Your task to perform on an android device: check android version Image 0: 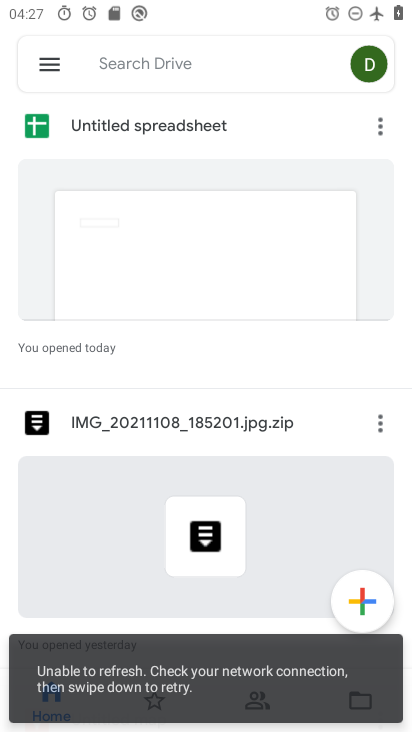
Step 0: press home button
Your task to perform on an android device: check android version Image 1: 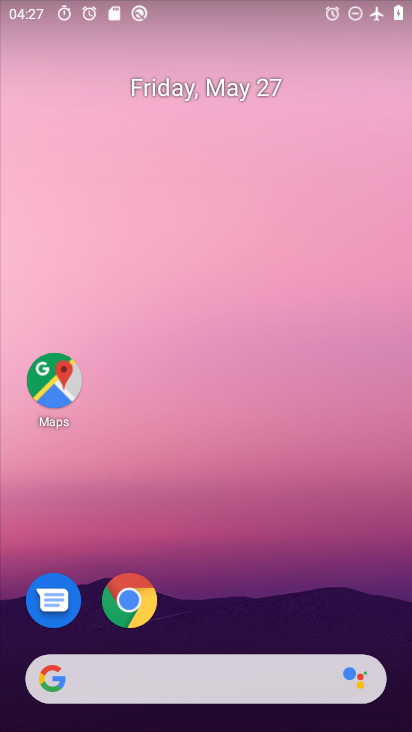
Step 1: drag from (223, 705) to (197, 69)
Your task to perform on an android device: check android version Image 2: 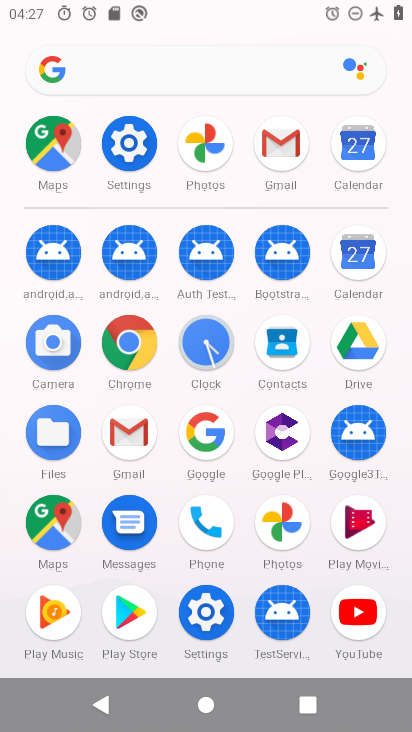
Step 2: click (125, 137)
Your task to perform on an android device: check android version Image 3: 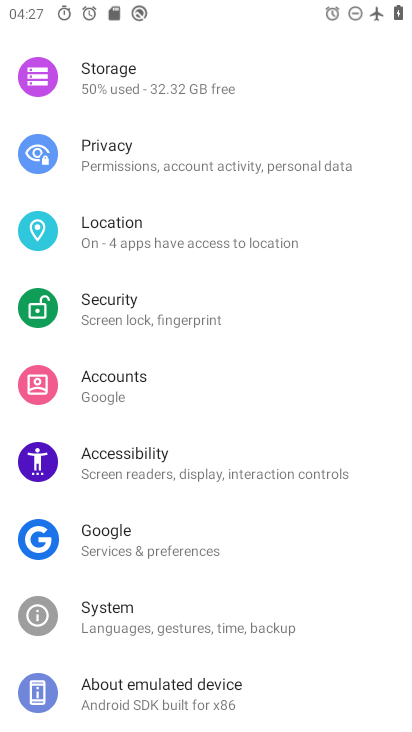
Step 3: drag from (172, 687) to (182, 168)
Your task to perform on an android device: check android version Image 4: 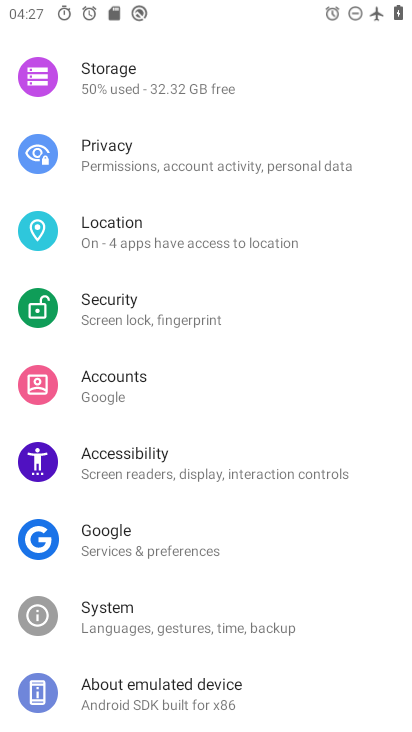
Step 4: click (138, 691)
Your task to perform on an android device: check android version Image 5: 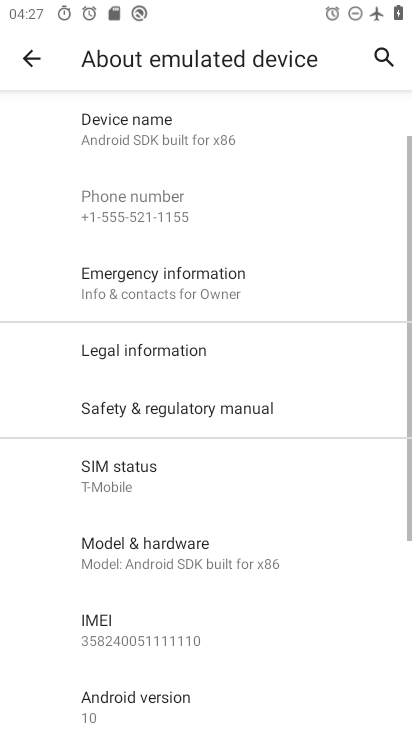
Step 5: drag from (204, 663) to (200, 282)
Your task to perform on an android device: check android version Image 6: 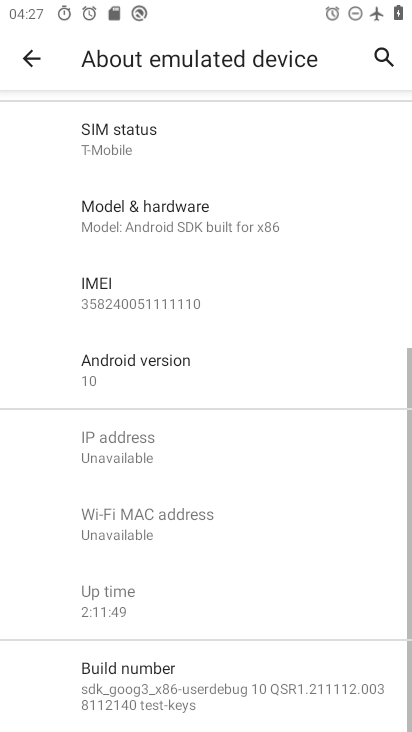
Step 6: click (144, 353)
Your task to perform on an android device: check android version Image 7: 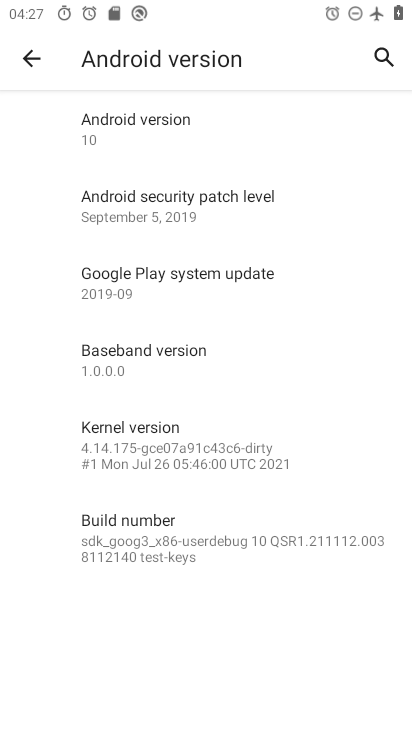
Step 7: task complete